Your task to perform on an android device: delete the emails in spam in the gmail app Image 0: 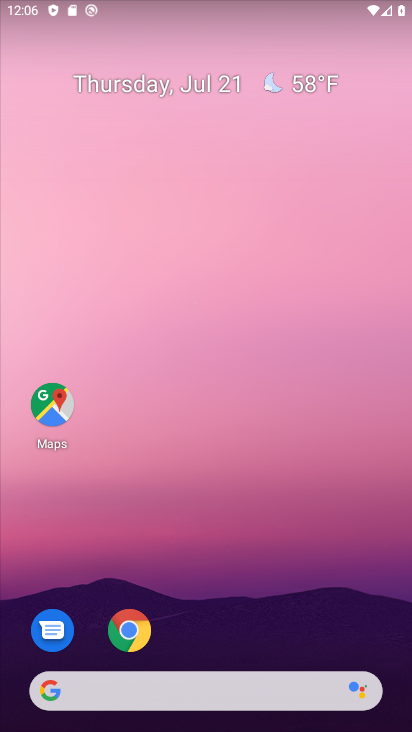
Step 0: drag from (210, 692) to (163, 205)
Your task to perform on an android device: delete the emails in spam in the gmail app Image 1: 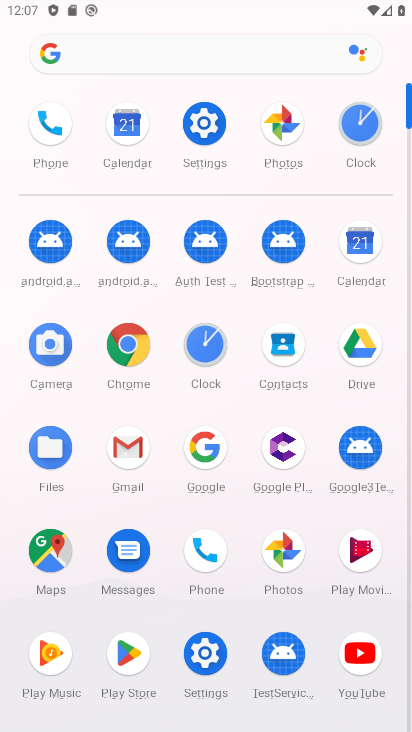
Step 1: click (123, 446)
Your task to perform on an android device: delete the emails in spam in the gmail app Image 2: 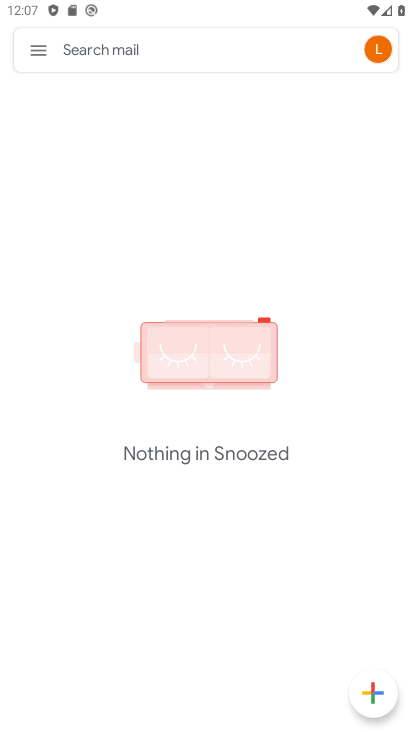
Step 2: click (35, 64)
Your task to perform on an android device: delete the emails in spam in the gmail app Image 3: 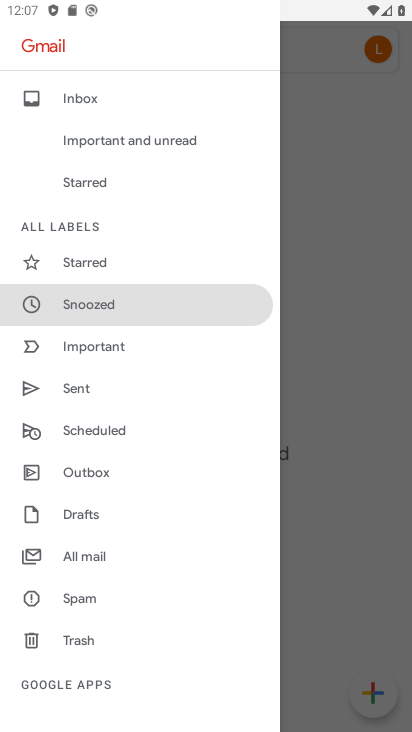
Step 3: click (77, 593)
Your task to perform on an android device: delete the emails in spam in the gmail app Image 4: 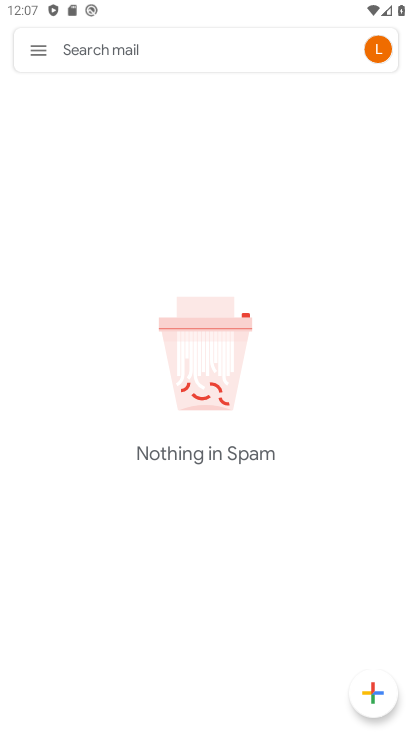
Step 4: task complete